Your task to perform on an android device: open sync settings in chrome Image 0: 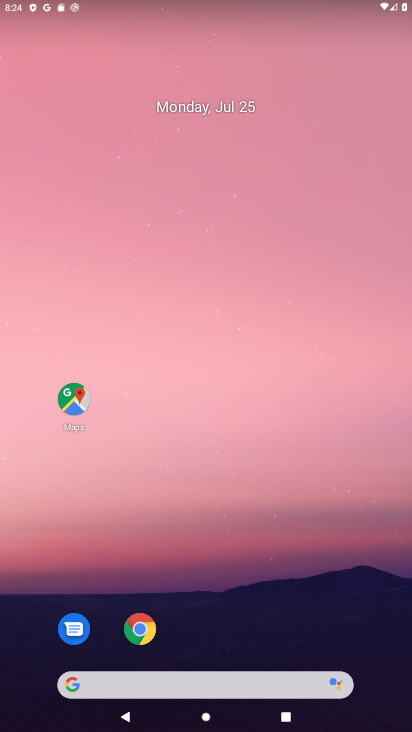
Step 0: drag from (175, 440) to (204, 623)
Your task to perform on an android device: open sync settings in chrome Image 1: 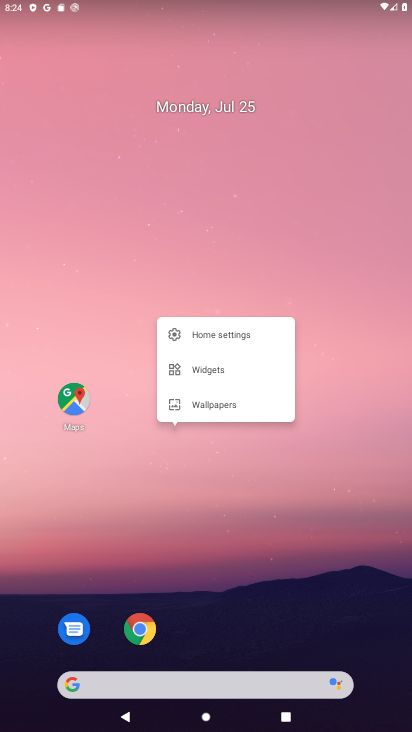
Step 1: click (151, 631)
Your task to perform on an android device: open sync settings in chrome Image 2: 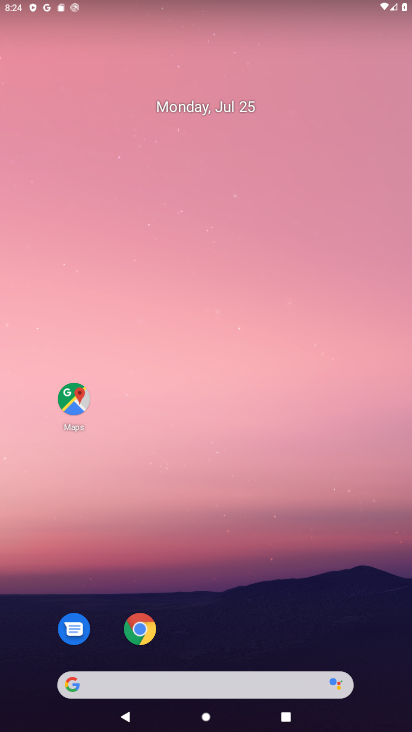
Step 2: click (145, 625)
Your task to perform on an android device: open sync settings in chrome Image 3: 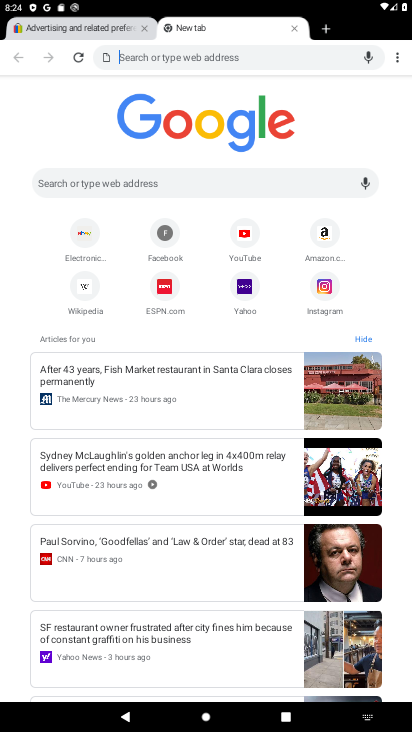
Step 3: click (403, 58)
Your task to perform on an android device: open sync settings in chrome Image 4: 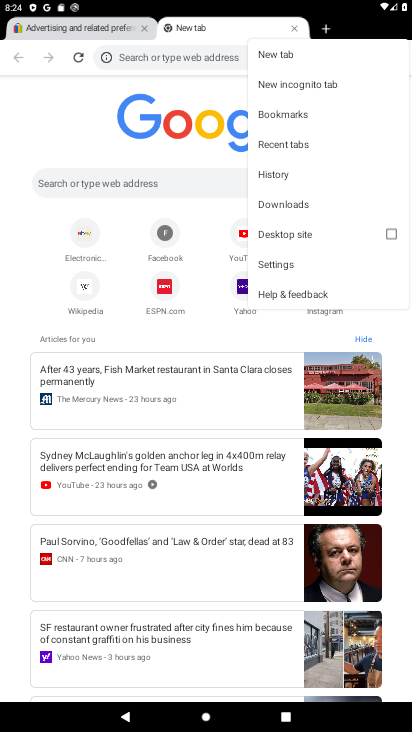
Step 4: click (280, 272)
Your task to perform on an android device: open sync settings in chrome Image 5: 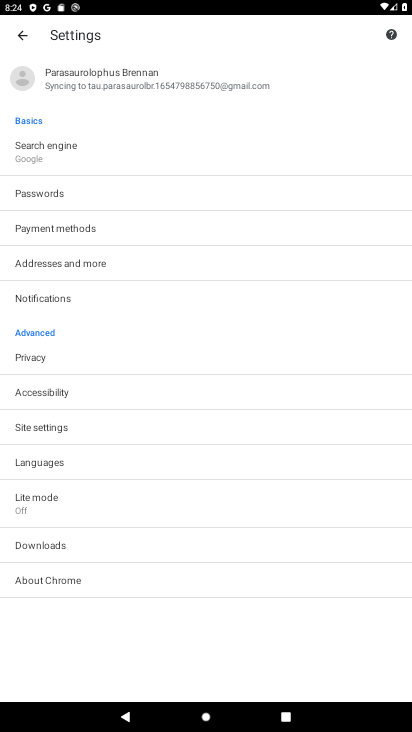
Step 5: click (186, 70)
Your task to perform on an android device: open sync settings in chrome Image 6: 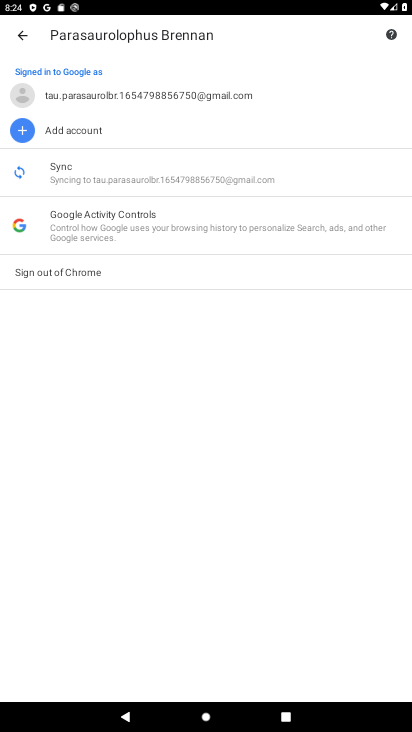
Step 6: click (59, 183)
Your task to perform on an android device: open sync settings in chrome Image 7: 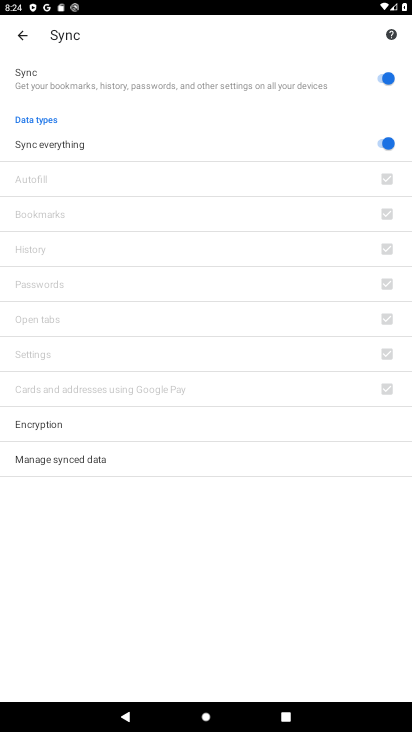
Step 7: task complete